Your task to perform on an android device: Search for "razer blade" on amazon, select the first entry, add it to the cart, then select checkout. Image 0: 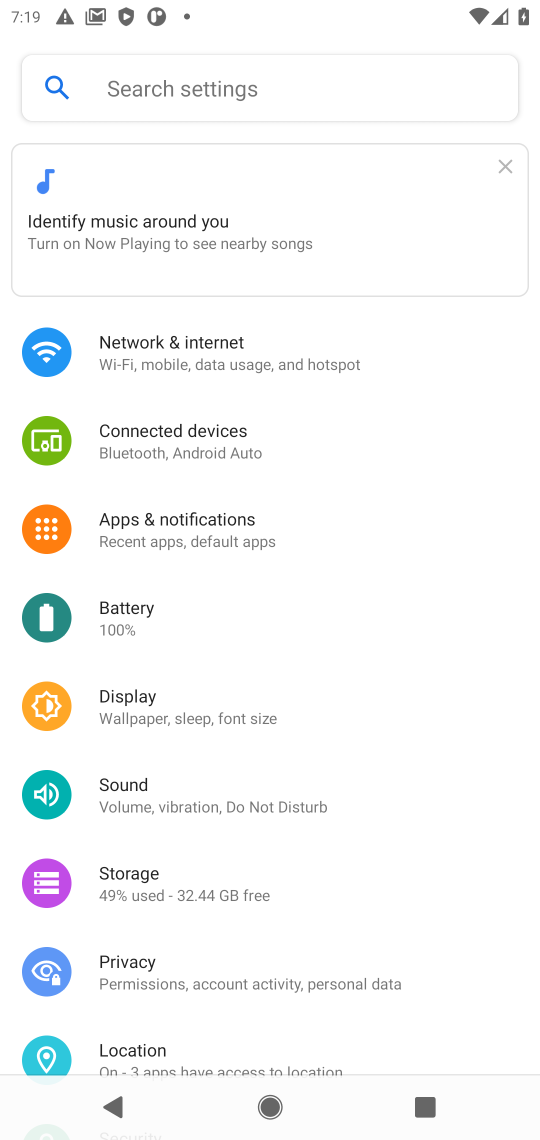
Step 0: press home button
Your task to perform on an android device: Search for "razer blade" on amazon, select the first entry, add it to the cart, then select checkout. Image 1: 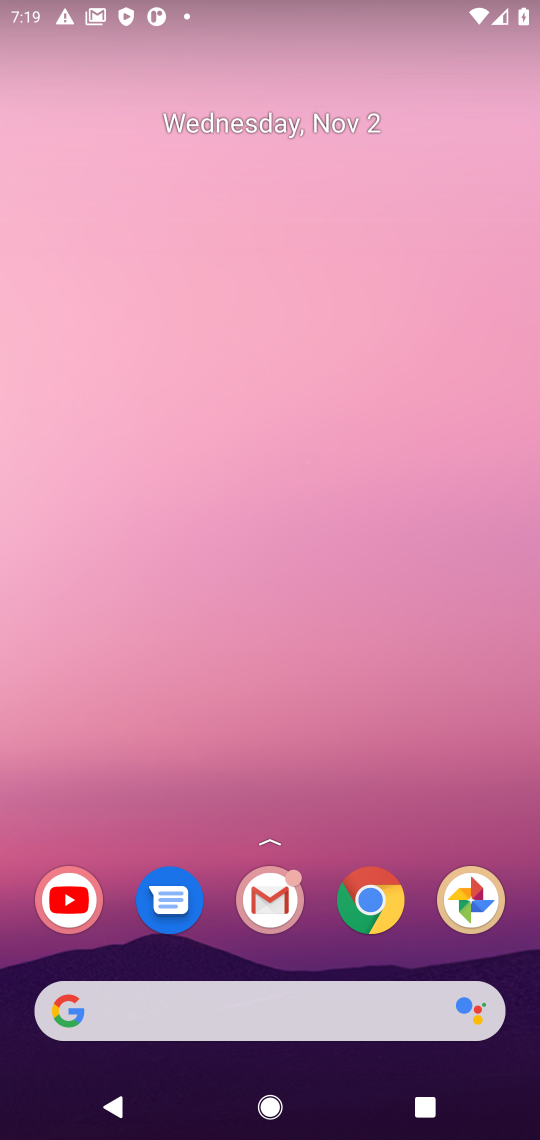
Step 1: click (276, 997)
Your task to perform on an android device: Search for "razer blade" on amazon, select the first entry, add it to the cart, then select checkout. Image 2: 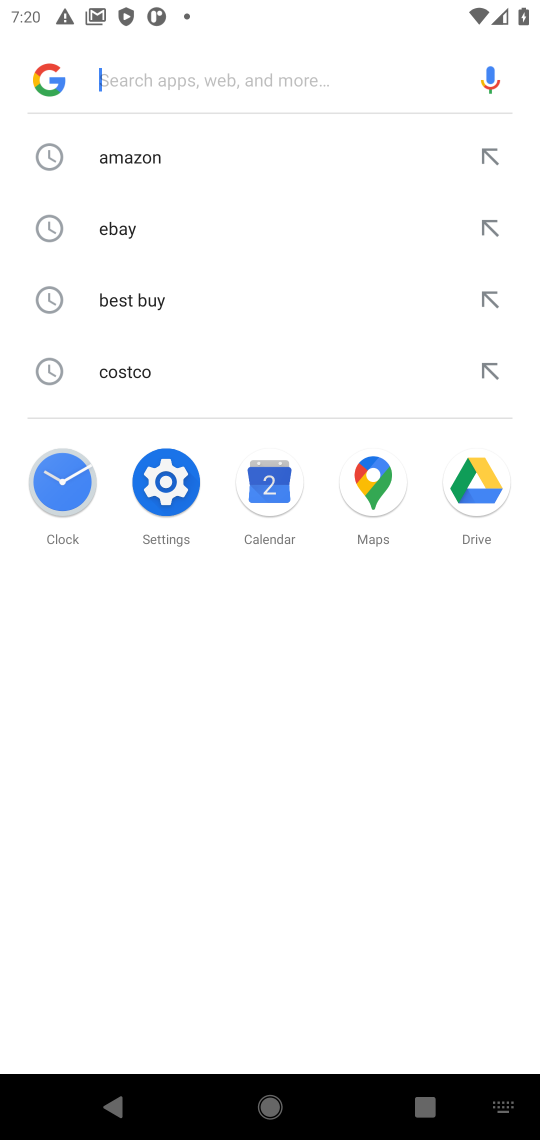
Step 2: click (140, 159)
Your task to perform on an android device: Search for "razer blade" on amazon, select the first entry, add it to the cart, then select checkout. Image 3: 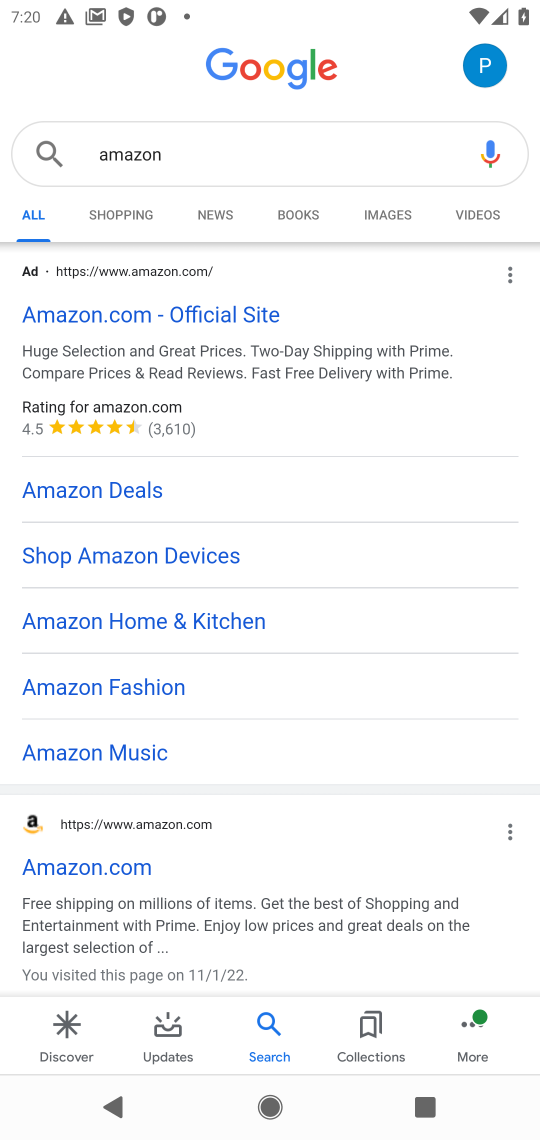
Step 3: click (86, 868)
Your task to perform on an android device: Search for "razer blade" on amazon, select the first entry, add it to the cart, then select checkout. Image 4: 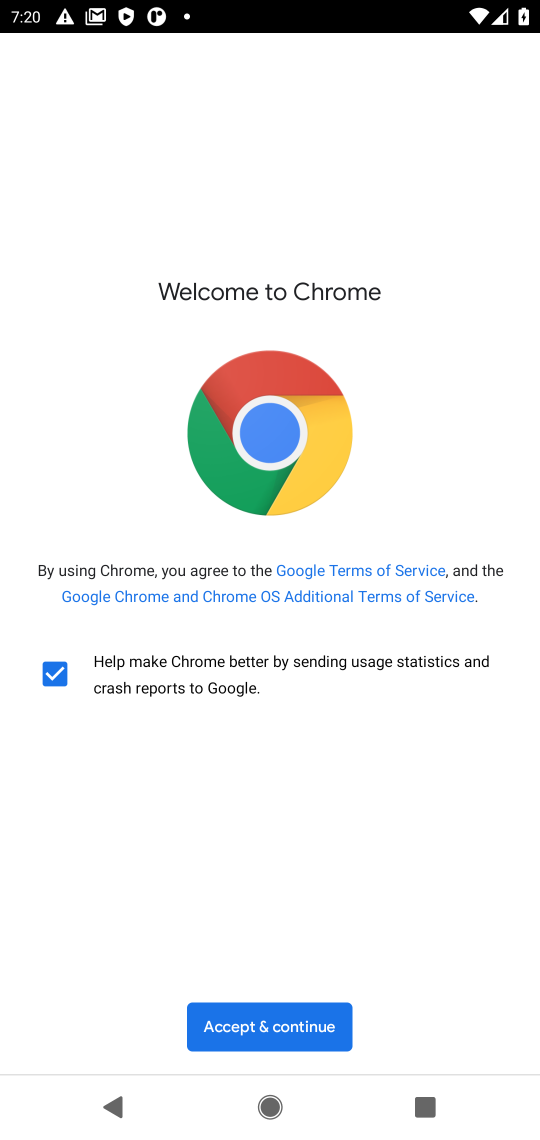
Step 4: click (279, 1023)
Your task to perform on an android device: Search for "razer blade" on amazon, select the first entry, add it to the cart, then select checkout. Image 5: 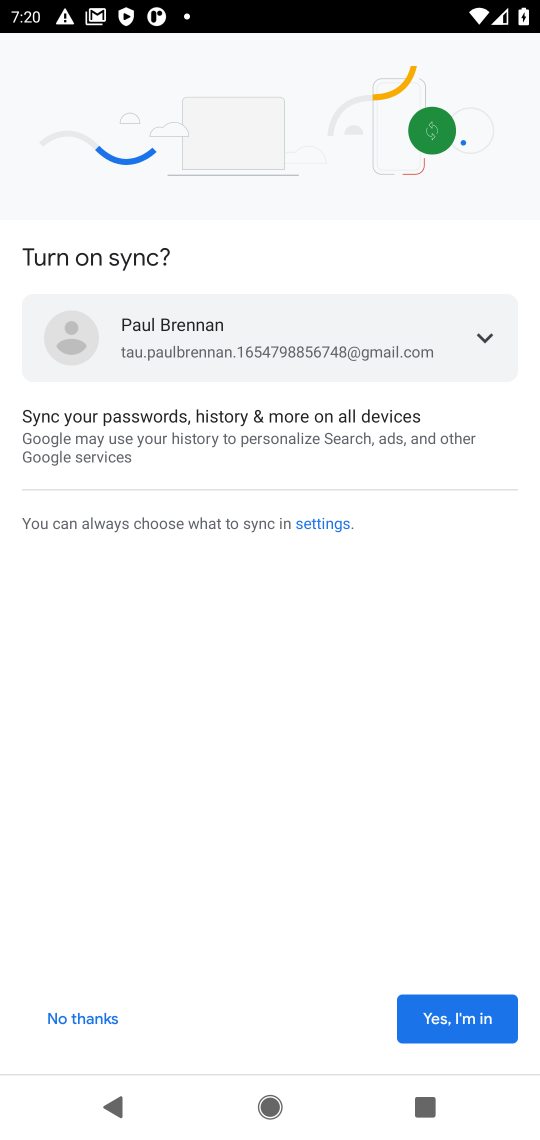
Step 5: click (433, 1011)
Your task to perform on an android device: Search for "razer blade" on amazon, select the first entry, add it to the cart, then select checkout. Image 6: 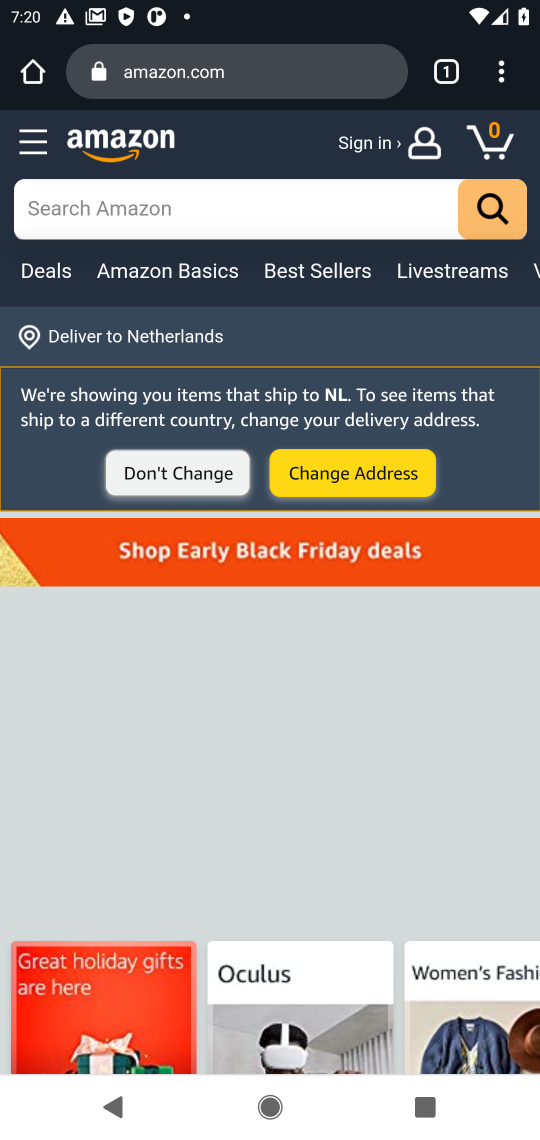
Step 6: click (221, 208)
Your task to perform on an android device: Search for "razer blade" on amazon, select the first entry, add it to the cart, then select checkout. Image 7: 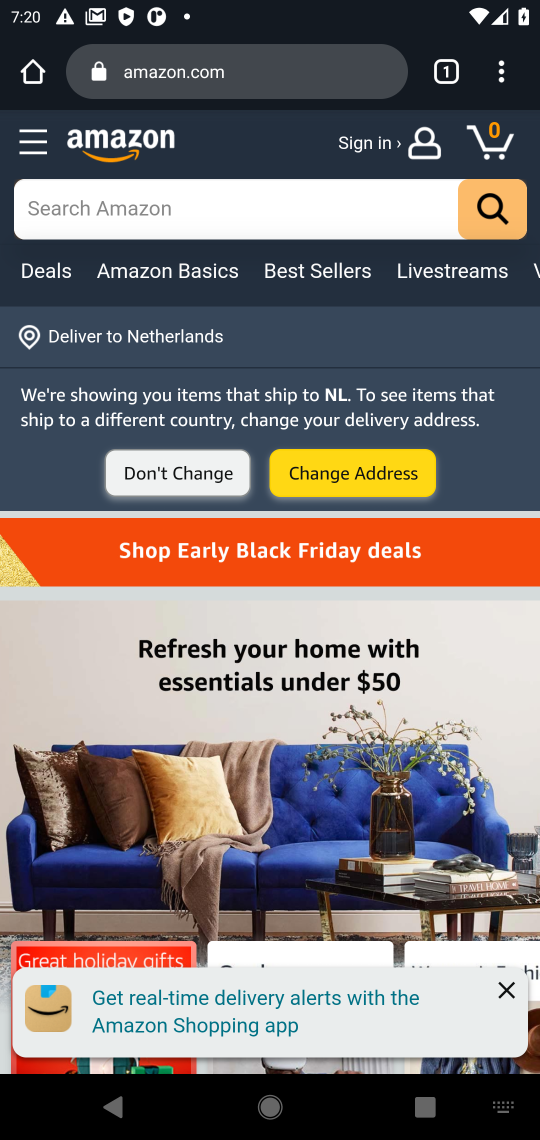
Step 7: type "razer blade"
Your task to perform on an android device: Search for "razer blade" on amazon, select the first entry, add it to the cart, then select checkout. Image 8: 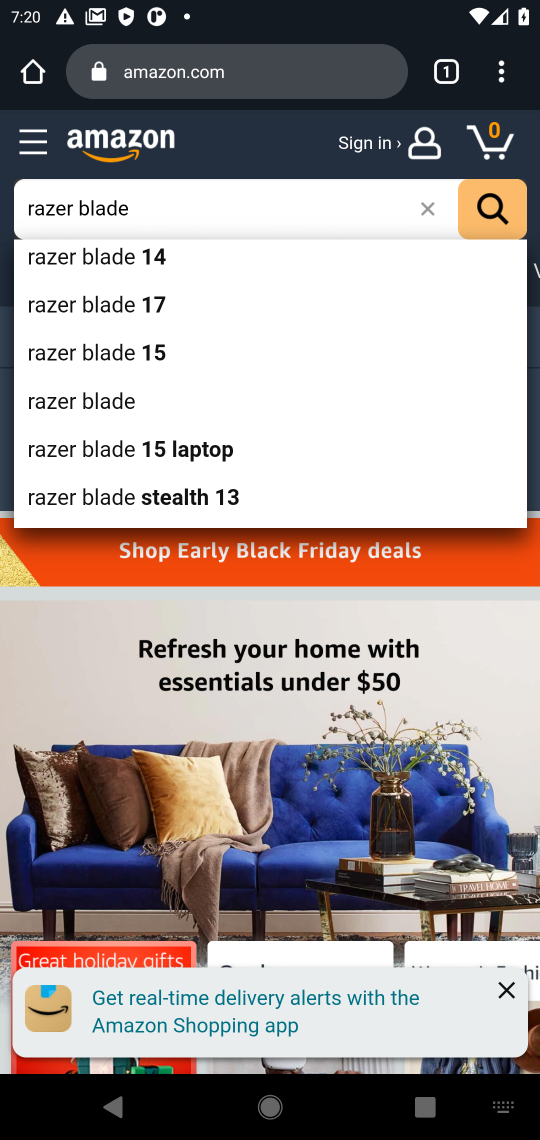
Step 8: click (106, 401)
Your task to perform on an android device: Search for "razer blade" on amazon, select the first entry, add it to the cart, then select checkout. Image 9: 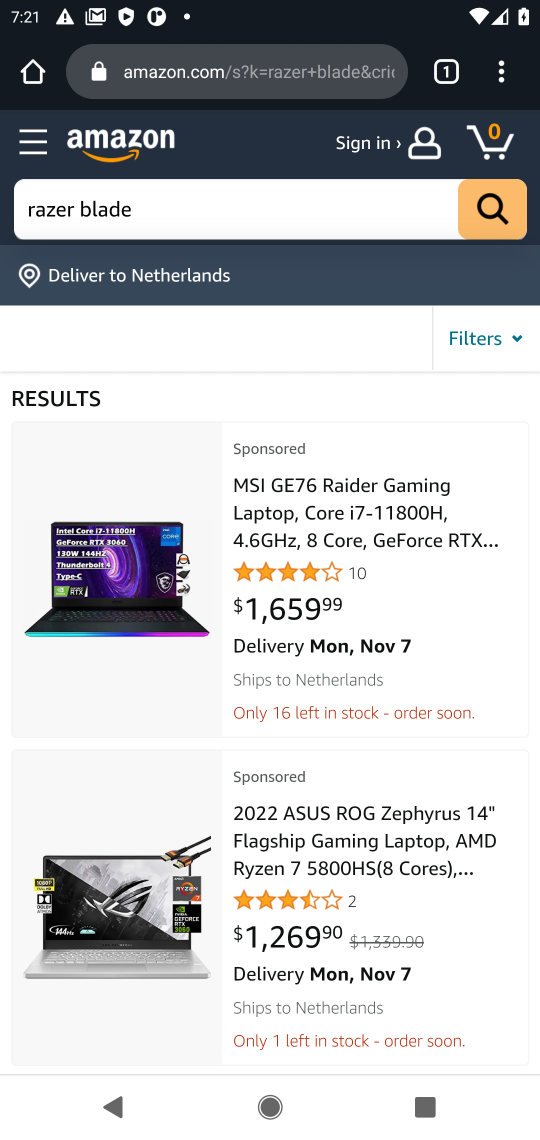
Step 9: click (323, 520)
Your task to perform on an android device: Search for "razer blade" on amazon, select the first entry, add it to the cart, then select checkout. Image 10: 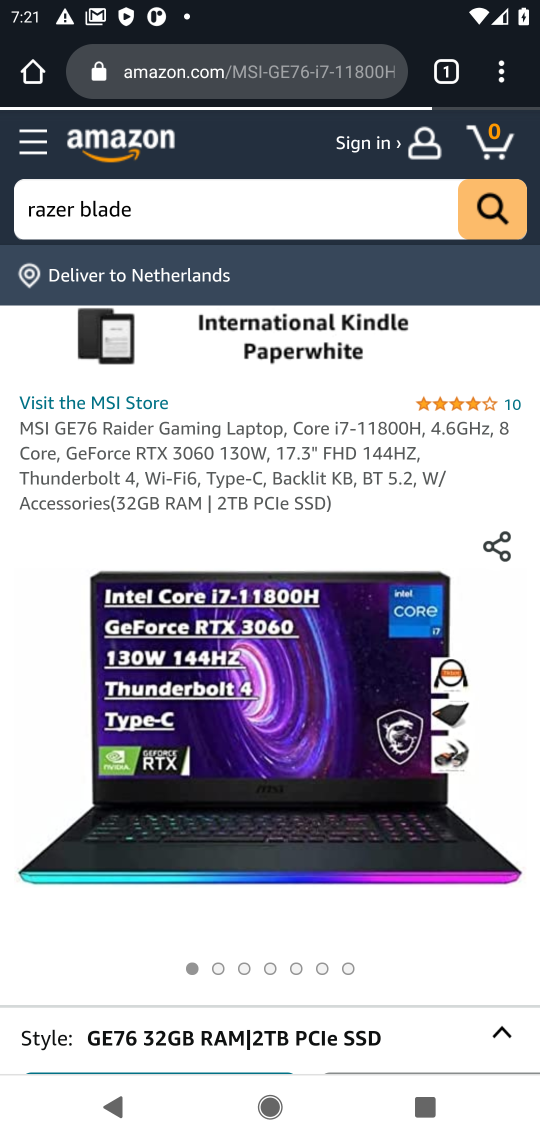
Step 10: drag from (370, 926) to (344, 608)
Your task to perform on an android device: Search for "razer blade" on amazon, select the first entry, add it to the cart, then select checkout. Image 11: 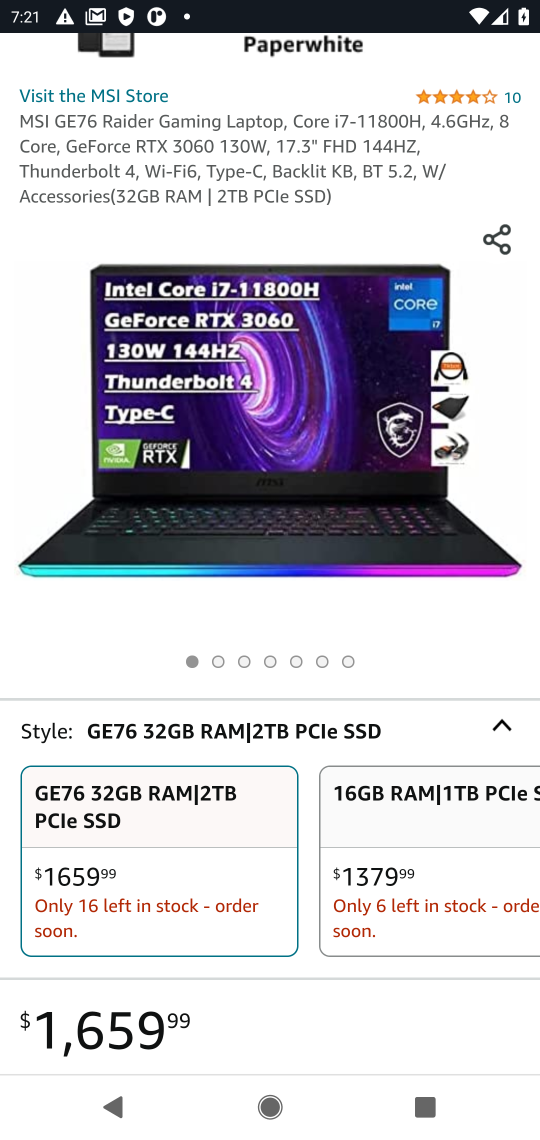
Step 11: drag from (362, 632) to (337, 405)
Your task to perform on an android device: Search for "razer blade" on amazon, select the first entry, add it to the cart, then select checkout. Image 12: 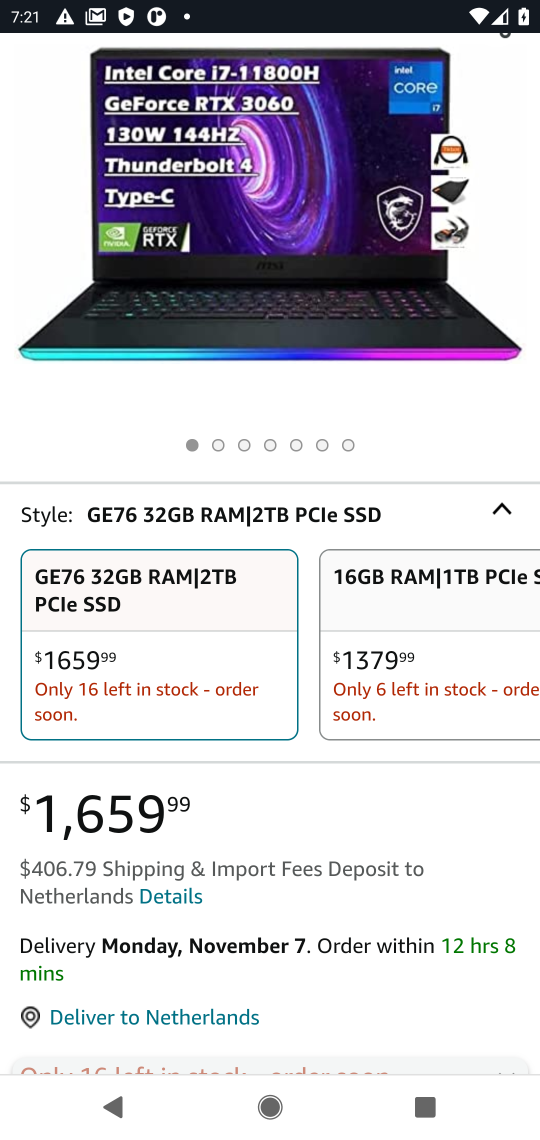
Step 12: drag from (419, 436) to (390, 226)
Your task to perform on an android device: Search for "razer blade" on amazon, select the first entry, add it to the cart, then select checkout. Image 13: 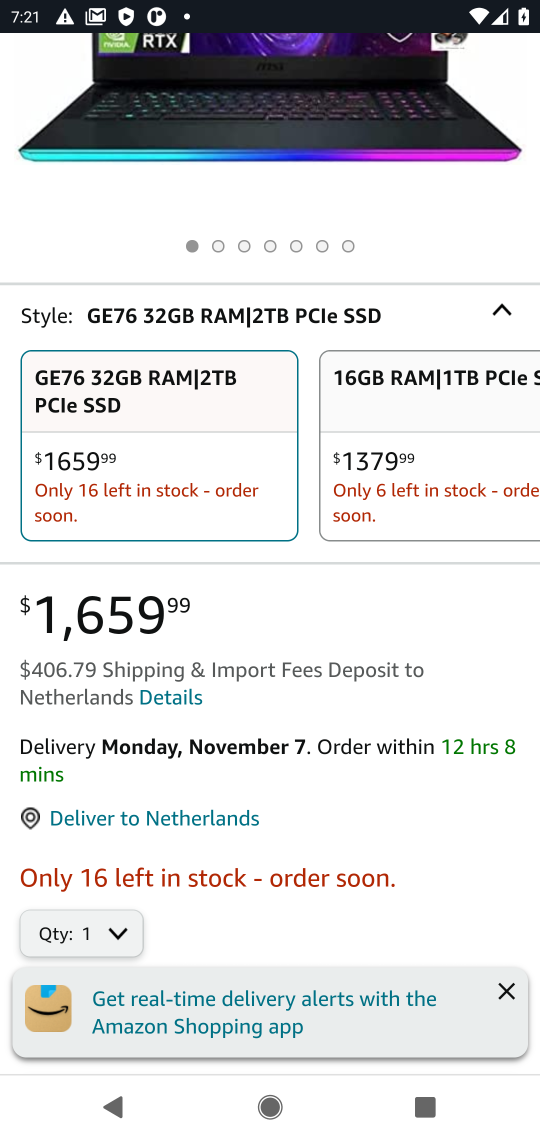
Step 13: drag from (392, 801) to (331, 517)
Your task to perform on an android device: Search for "razer blade" on amazon, select the first entry, add it to the cart, then select checkout. Image 14: 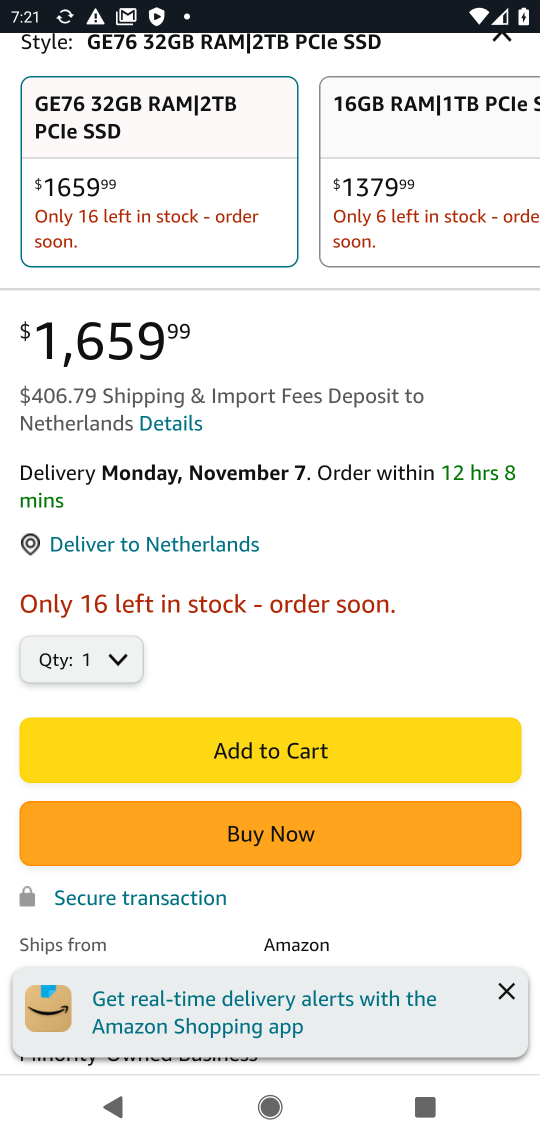
Step 14: click (281, 740)
Your task to perform on an android device: Search for "razer blade" on amazon, select the first entry, add it to the cart, then select checkout. Image 15: 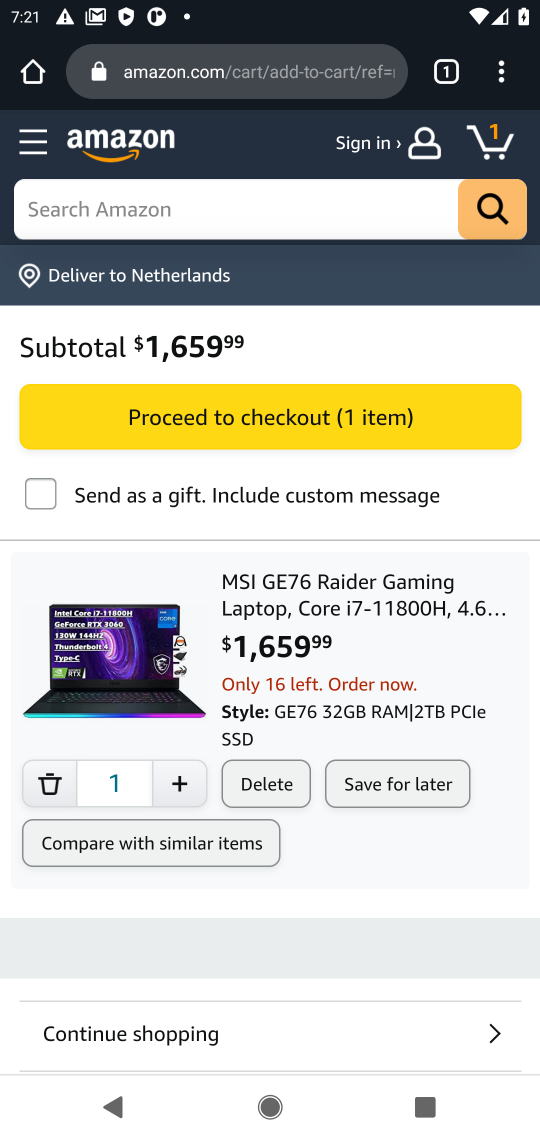
Step 15: click (269, 413)
Your task to perform on an android device: Search for "razer blade" on amazon, select the first entry, add it to the cart, then select checkout. Image 16: 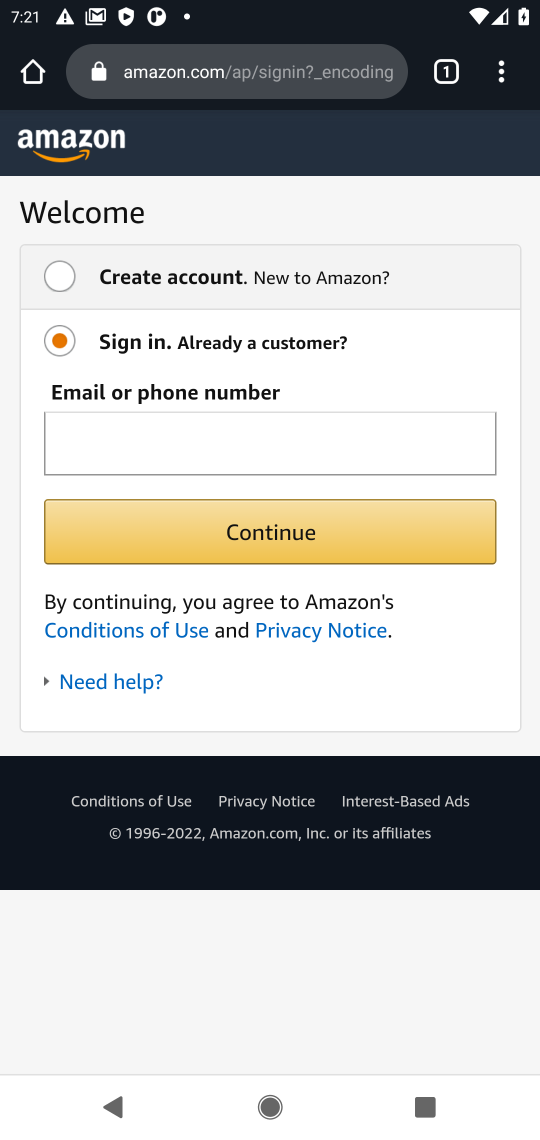
Step 16: task complete